Your task to perform on an android device: Open Google Chrome Image 0: 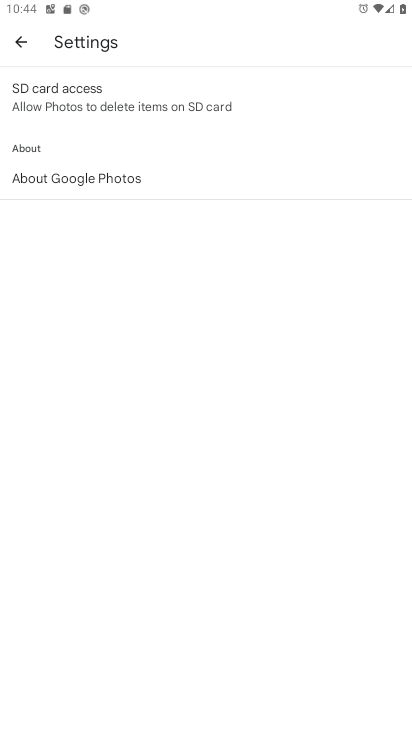
Step 0: press home button
Your task to perform on an android device: Open Google Chrome Image 1: 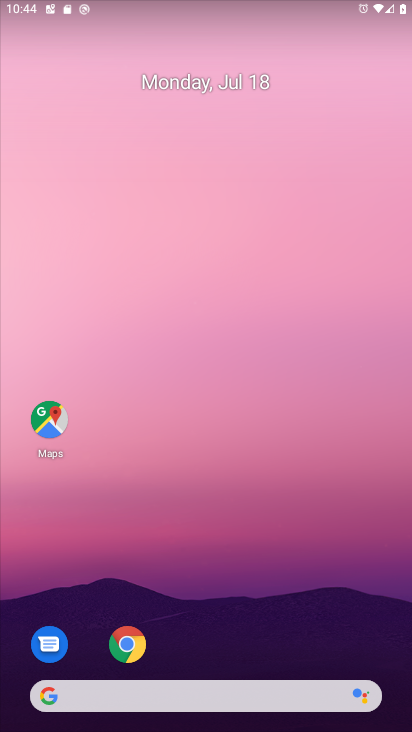
Step 1: click (142, 648)
Your task to perform on an android device: Open Google Chrome Image 2: 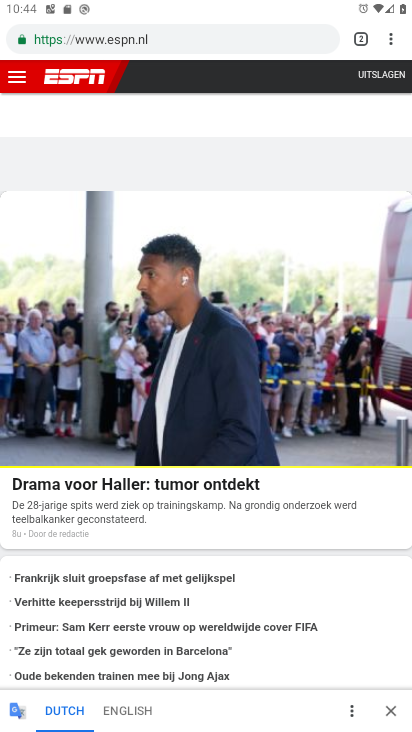
Step 2: task complete